Your task to perform on an android device: When is my next appointment? Image 0: 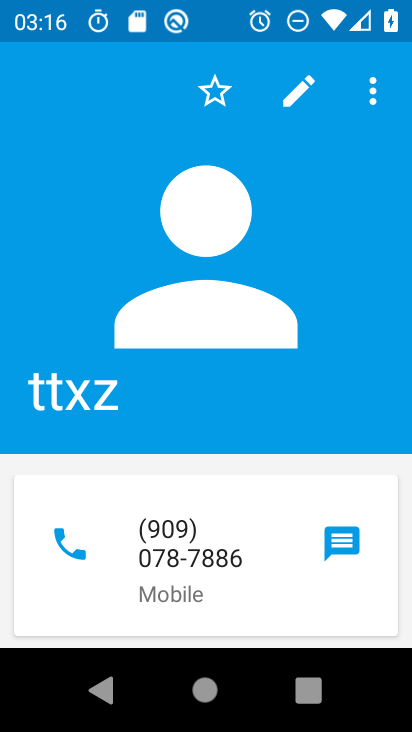
Step 0: press home button
Your task to perform on an android device: When is my next appointment? Image 1: 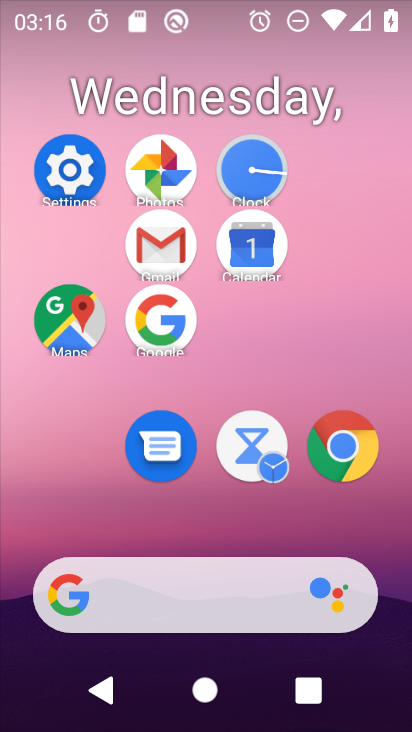
Step 1: click (238, 233)
Your task to perform on an android device: When is my next appointment? Image 2: 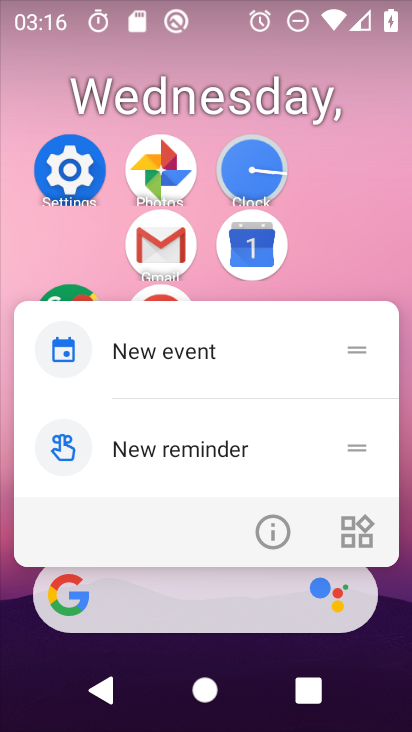
Step 2: click (238, 233)
Your task to perform on an android device: When is my next appointment? Image 3: 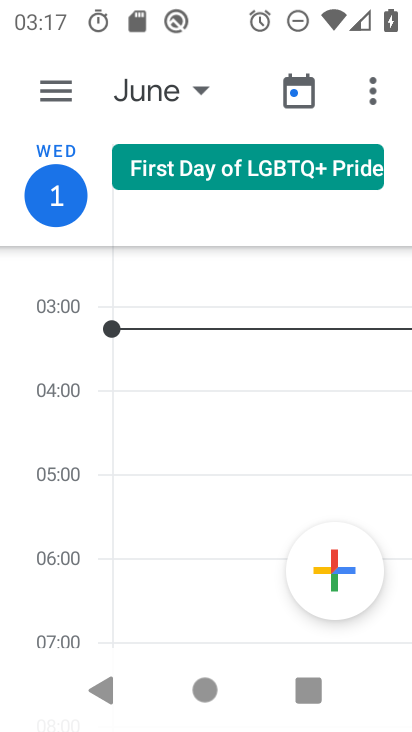
Step 3: click (166, 79)
Your task to perform on an android device: When is my next appointment? Image 4: 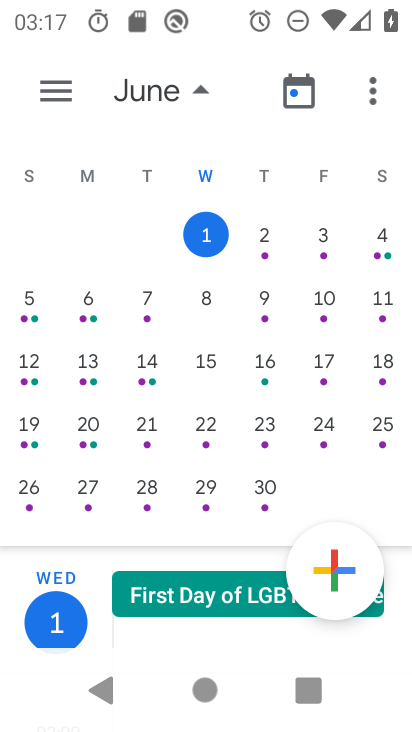
Step 4: click (251, 235)
Your task to perform on an android device: When is my next appointment? Image 5: 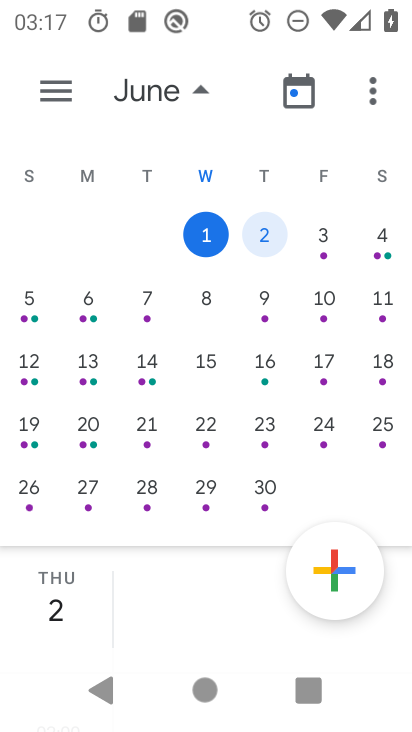
Step 5: click (52, 603)
Your task to perform on an android device: When is my next appointment? Image 6: 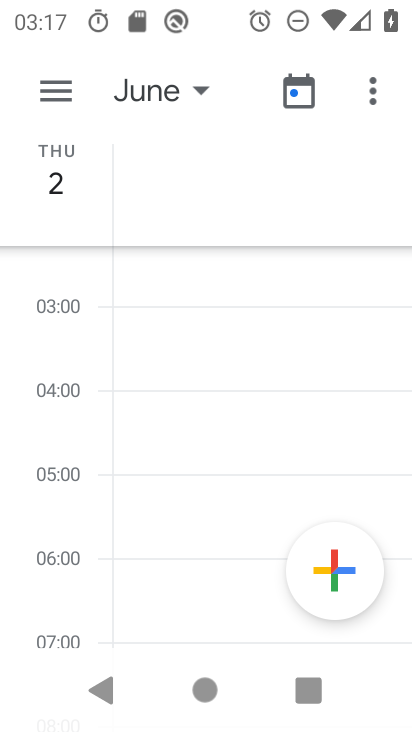
Step 6: task complete